Your task to perform on an android device: Show me popular games on the Play Store Image 0: 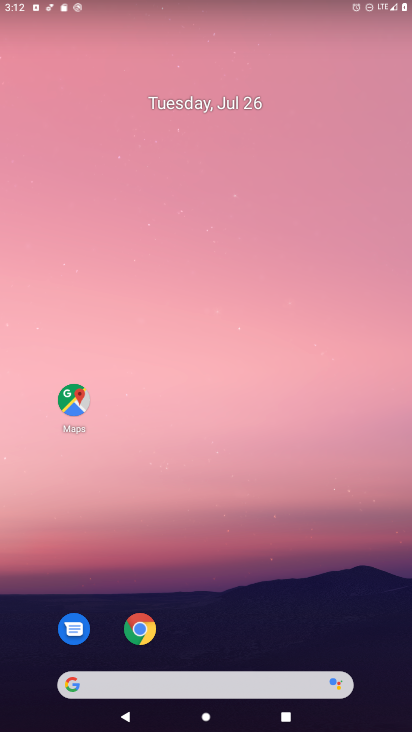
Step 0: drag from (379, 664) to (320, 127)
Your task to perform on an android device: Show me popular games on the Play Store Image 1: 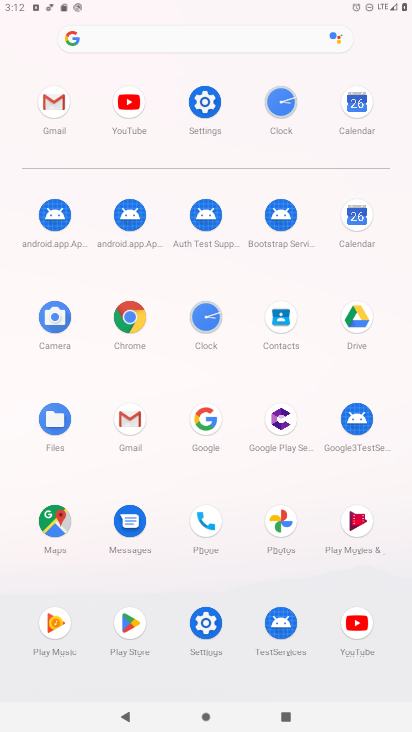
Step 1: click (132, 621)
Your task to perform on an android device: Show me popular games on the Play Store Image 2: 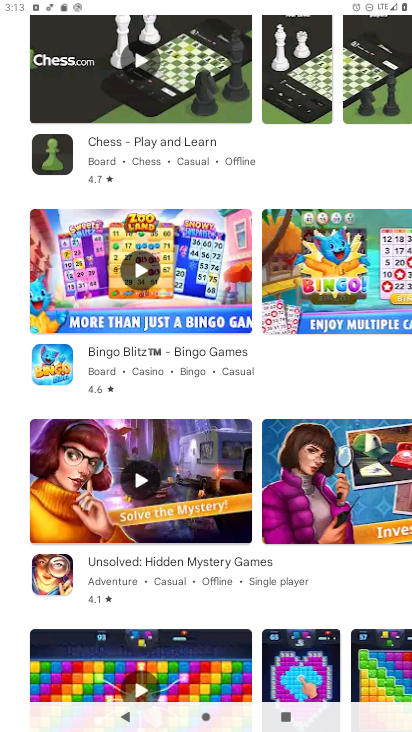
Step 2: task complete